Your task to perform on an android device: open the mobile data screen to see how much data has been used Image 0: 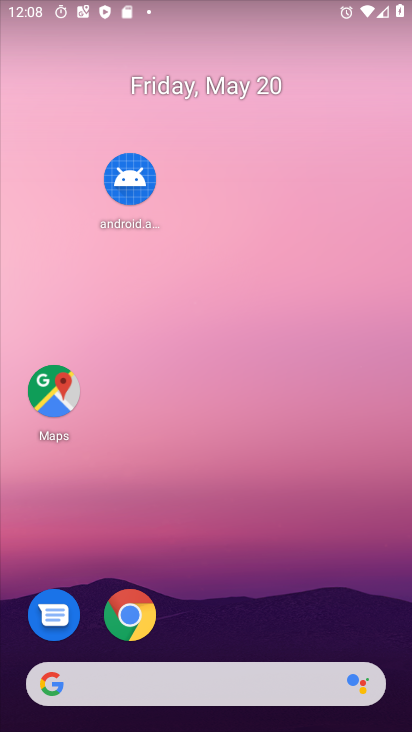
Step 0: drag from (311, 2) to (384, 515)
Your task to perform on an android device: open the mobile data screen to see how much data has been used Image 1: 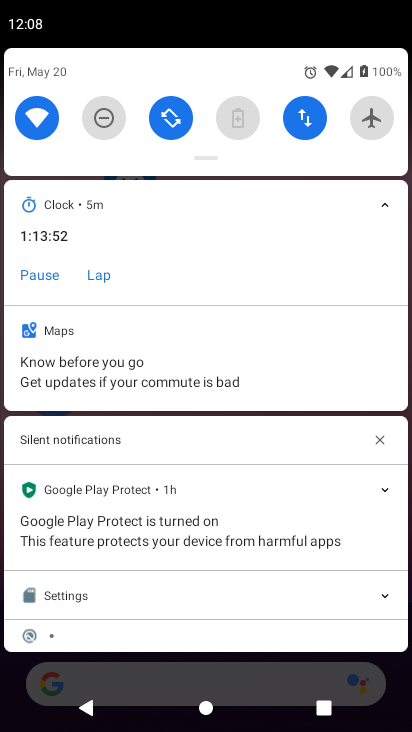
Step 1: click (302, 114)
Your task to perform on an android device: open the mobile data screen to see how much data has been used Image 2: 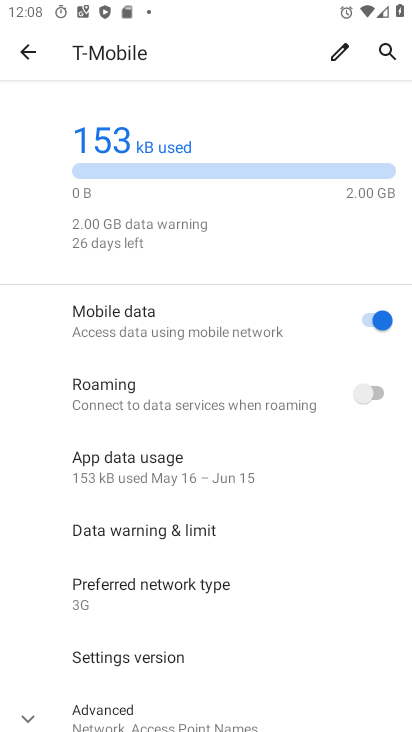
Step 2: task complete